Your task to perform on an android device: visit the assistant section in the google photos Image 0: 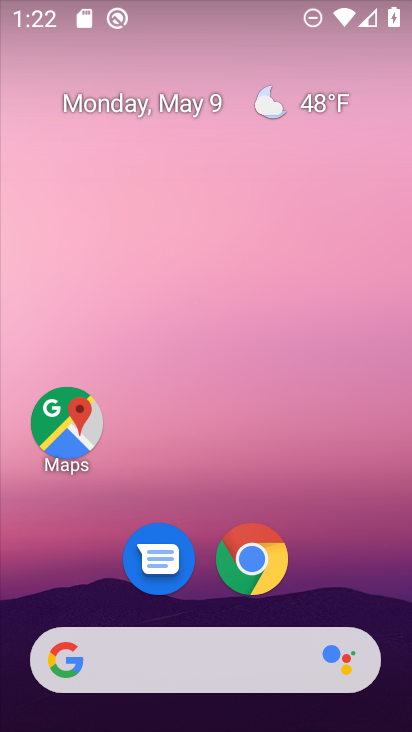
Step 0: drag from (195, 606) to (261, 154)
Your task to perform on an android device: visit the assistant section in the google photos Image 1: 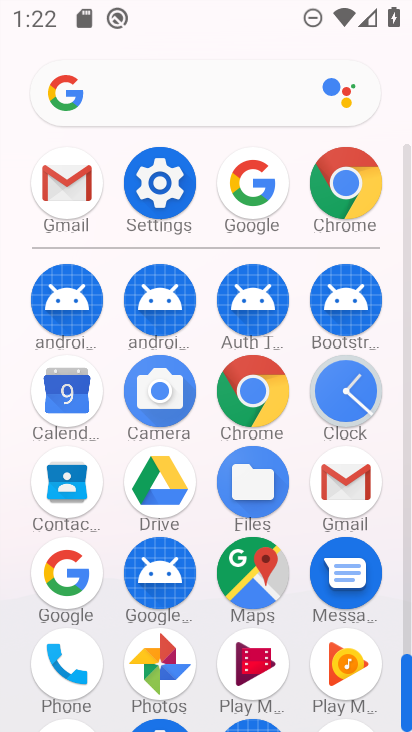
Step 1: click (167, 169)
Your task to perform on an android device: visit the assistant section in the google photos Image 2: 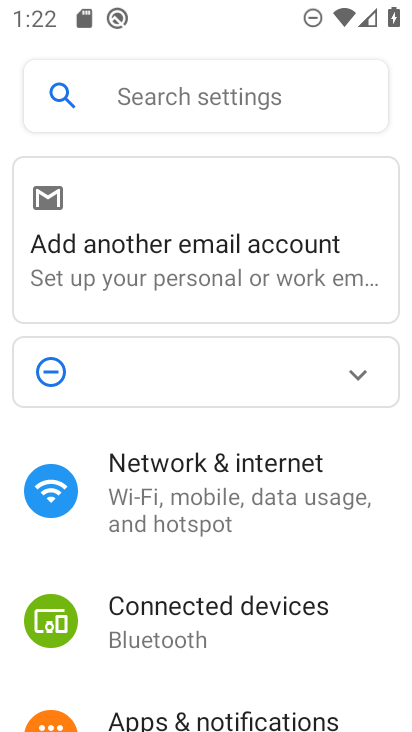
Step 2: drag from (148, 598) to (222, 158)
Your task to perform on an android device: visit the assistant section in the google photos Image 3: 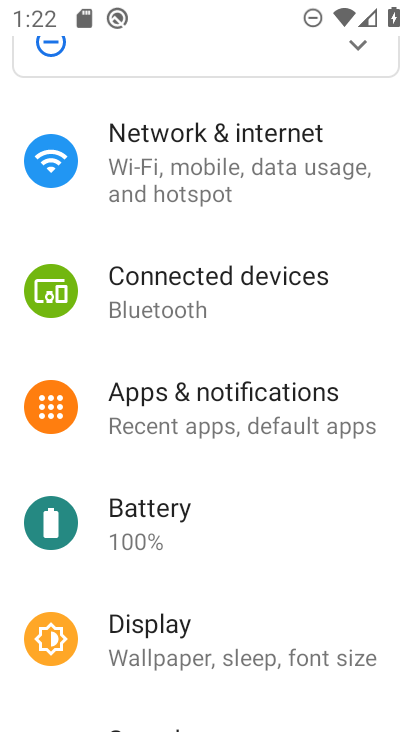
Step 3: drag from (258, 633) to (259, 234)
Your task to perform on an android device: visit the assistant section in the google photos Image 4: 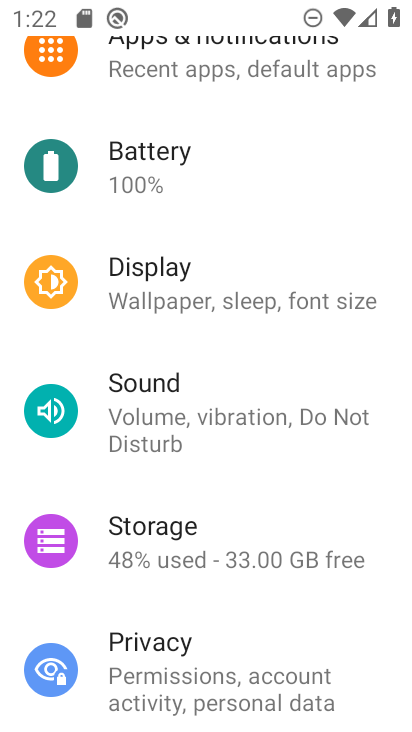
Step 4: drag from (252, 598) to (255, 235)
Your task to perform on an android device: visit the assistant section in the google photos Image 5: 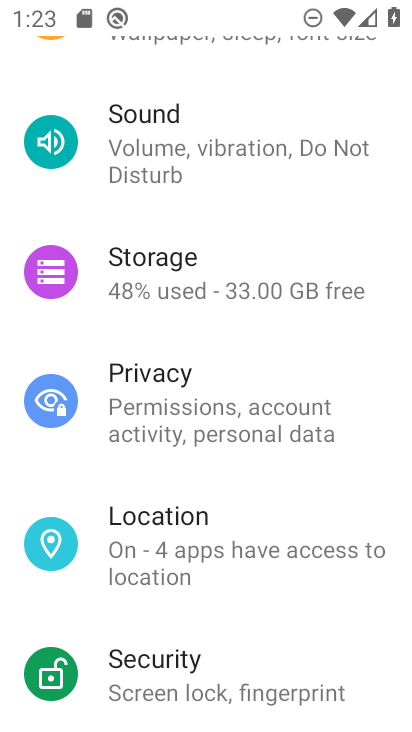
Step 5: press back button
Your task to perform on an android device: visit the assistant section in the google photos Image 6: 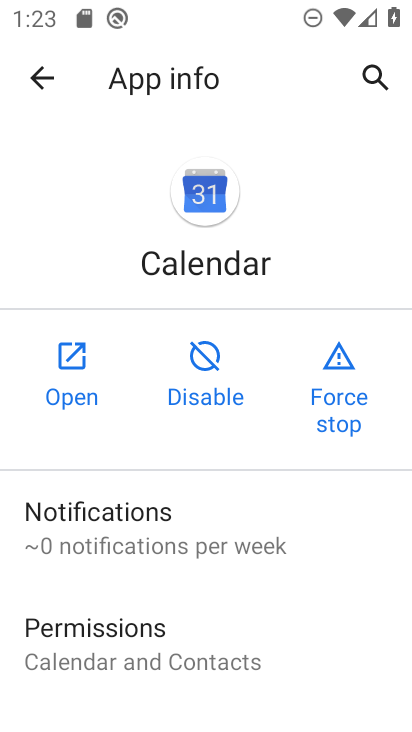
Step 6: press home button
Your task to perform on an android device: visit the assistant section in the google photos Image 7: 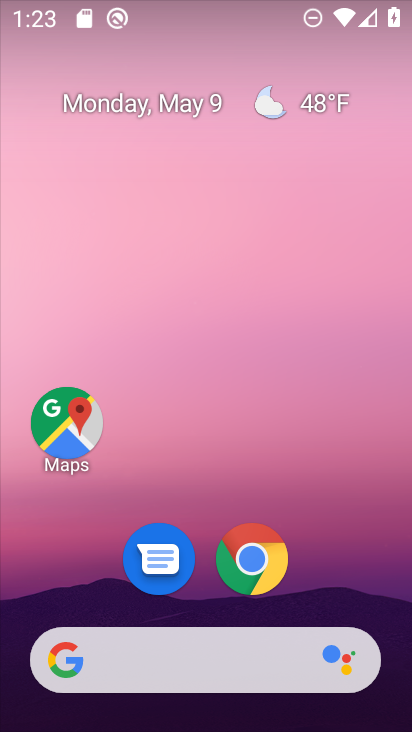
Step 7: drag from (219, 590) to (299, 152)
Your task to perform on an android device: visit the assistant section in the google photos Image 8: 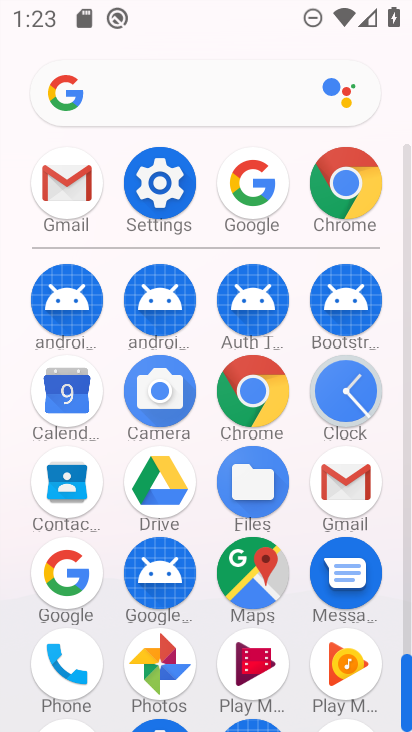
Step 8: click (153, 663)
Your task to perform on an android device: visit the assistant section in the google photos Image 9: 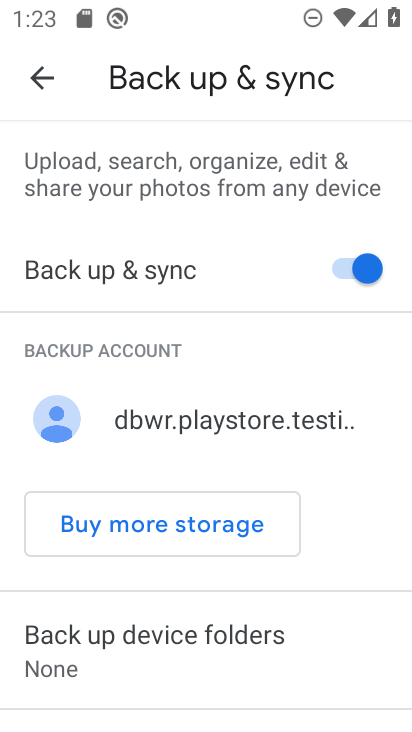
Step 9: click (40, 86)
Your task to perform on an android device: visit the assistant section in the google photos Image 10: 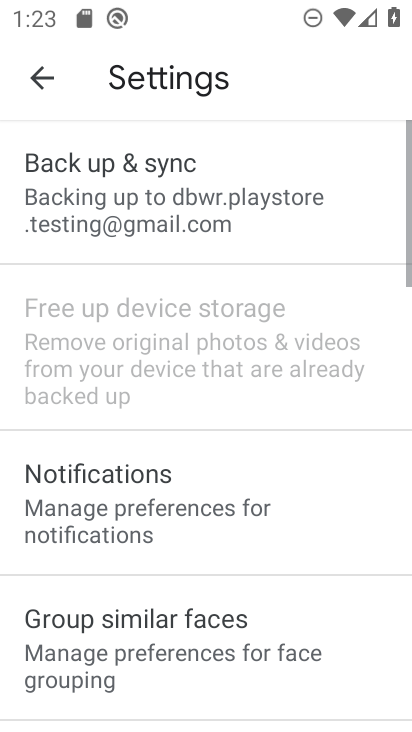
Step 10: click (42, 79)
Your task to perform on an android device: visit the assistant section in the google photos Image 11: 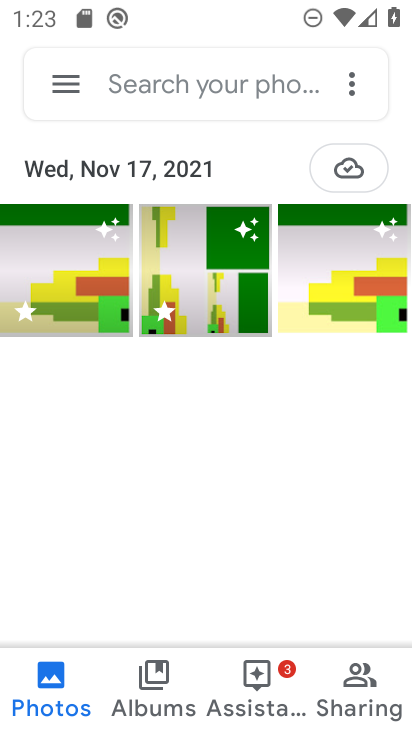
Step 11: drag from (285, 527) to (343, 191)
Your task to perform on an android device: visit the assistant section in the google photos Image 12: 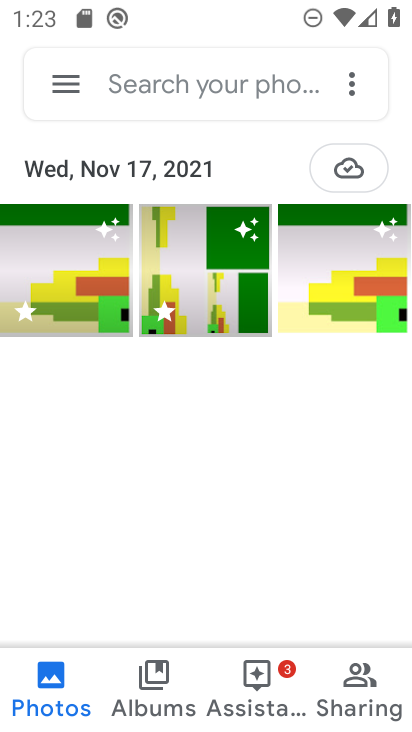
Step 12: click (248, 698)
Your task to perform on an android device: visit the assistant section in the google photos Image 13: 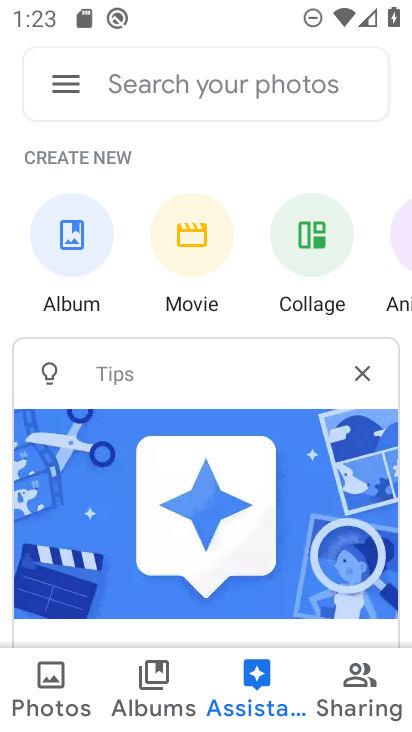
Step 13: task complete